Your task to perform on an android device: find photos in the google photos app Image 0: 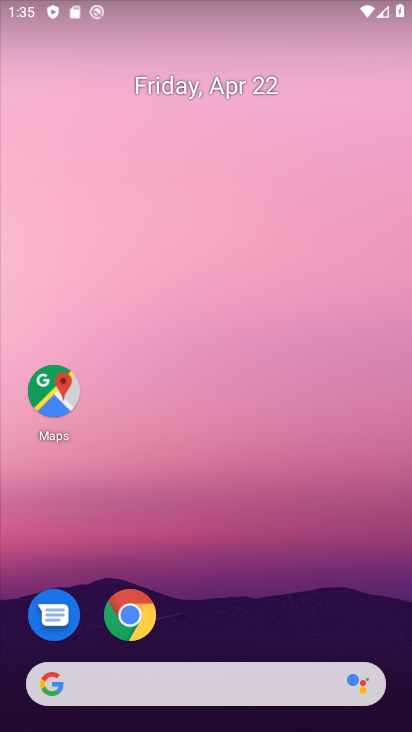
Step 0: drag from (205, 653) to (306, 108)
Your task to perform on an android device: find photos in the google photos app Image 1: 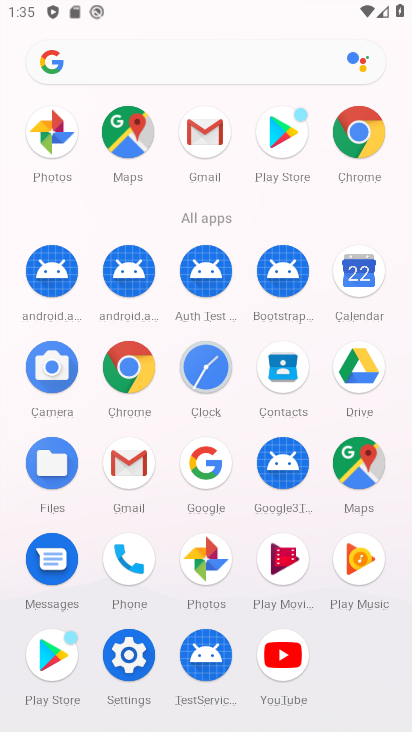
Step 1: click (213, 554)
Your task to perform on an android device: find photos in the google photos app Image 2: 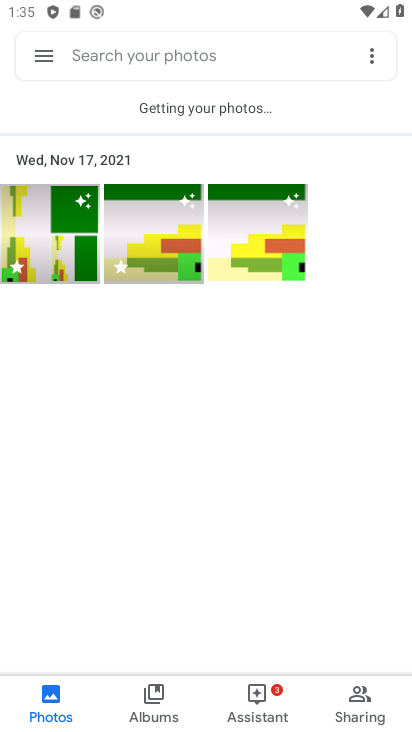
Step 2: task complete